Your task to perform on an android device: Open calendar and show me the third week of next month Image 0: 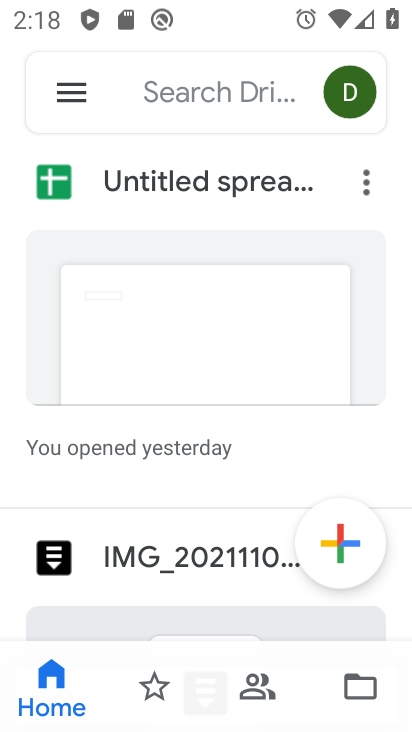
Step 0: press home button
Your task to perform on an android device: Open calendar and show me the third week of next month Image 1: 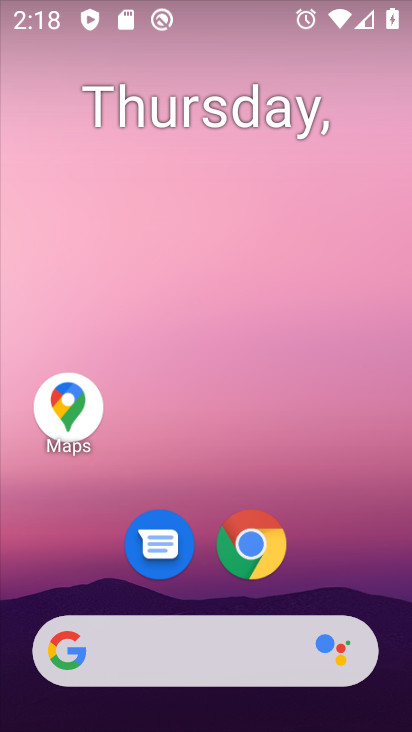
Step 1: drag from (306, 540) to (54, 56)
Your task to perform on an android device: Open calendar and show me the third week of next month Image 2: 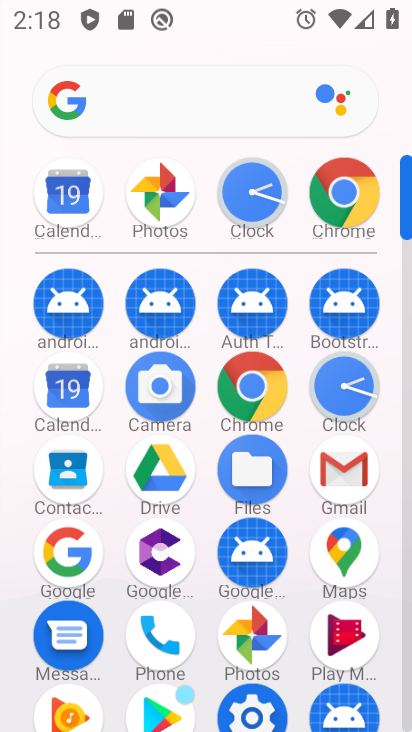
Step 2: click (56, 200)
Your task to perform on an android device: Open calendar and show me the third week of next month Image 3: 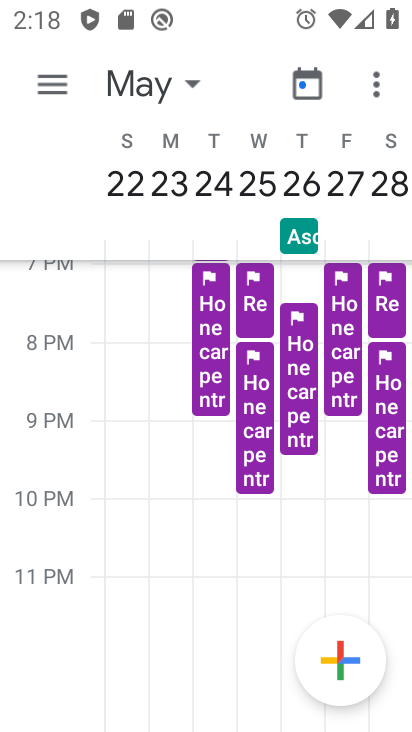
Step 3: click (166, 90)
Your task to perform on an android device: Open calendar and show me the third week of next month Image 4: 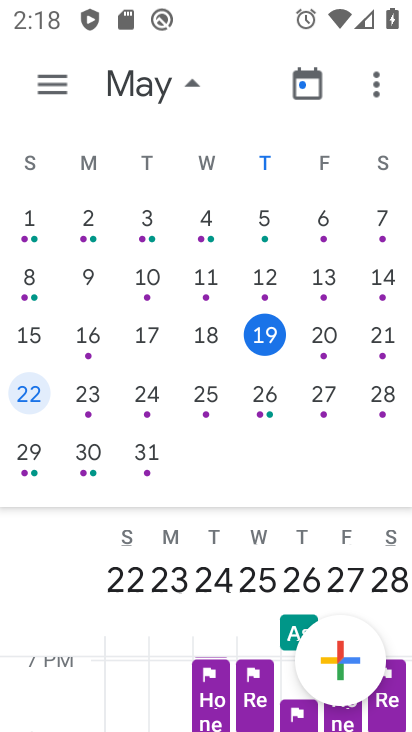
Step 4: drag from (351, 317) to (11, 356)
Your task to perform on an android device: Open calendar and show me the third week of next month Image 5: 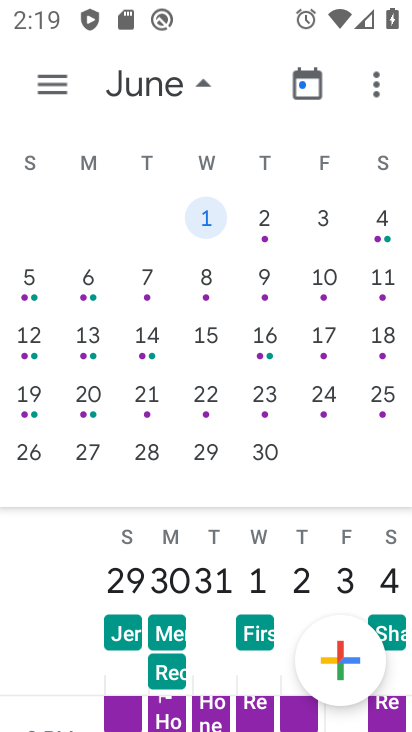
Step 5: click (32, 342)
Your task to perform on an android device: Open calendar and show me the third week of next month Image 6: 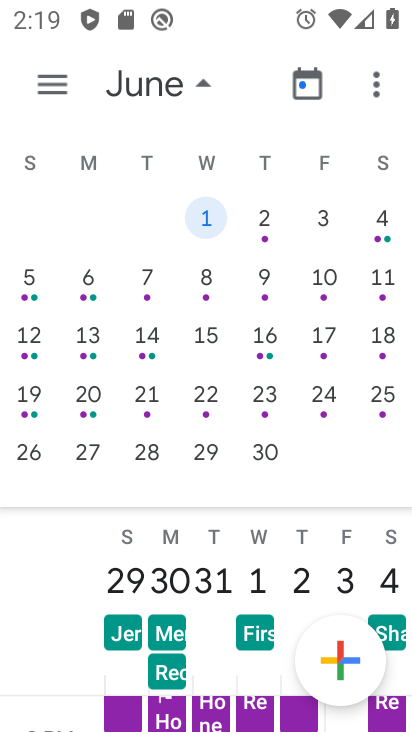
Step 6: click (32, 341)
Your task to perform on an android device: Open calendar and show me the third week of next month Image 7: 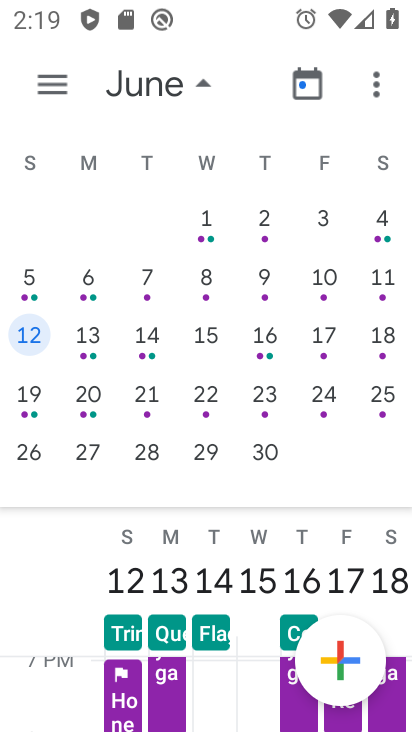
Step 7: click (153, 95)
Your task to perform on an android device: Open calendar and show me the third week of next month Image 8: 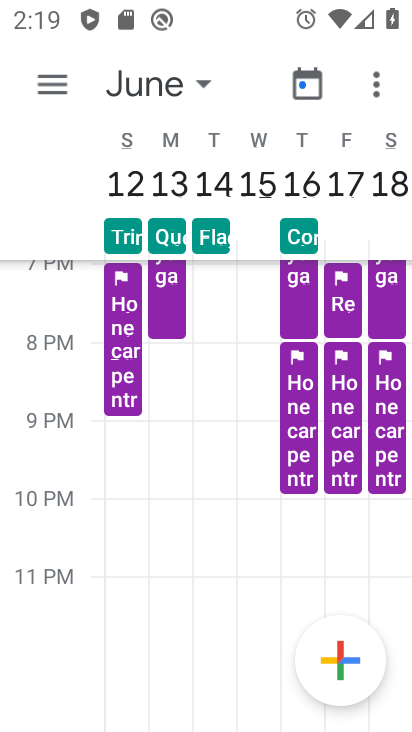
Step 8: task complete